Your task to perform on an android device: Open the map Image 0: 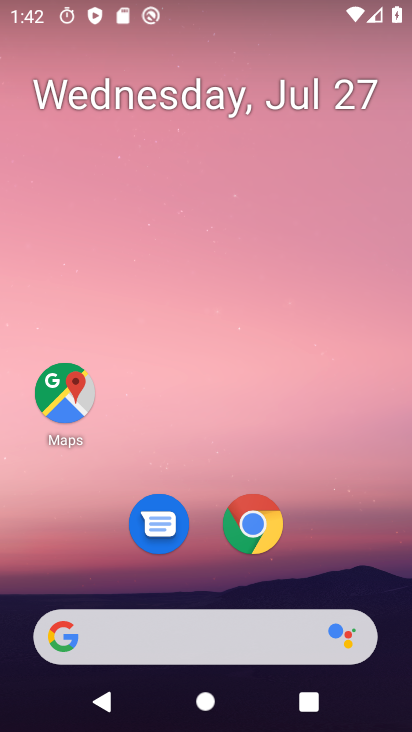
Step 0: click (59, 392)
Your task to perform on an android device: Open the map Image 1: 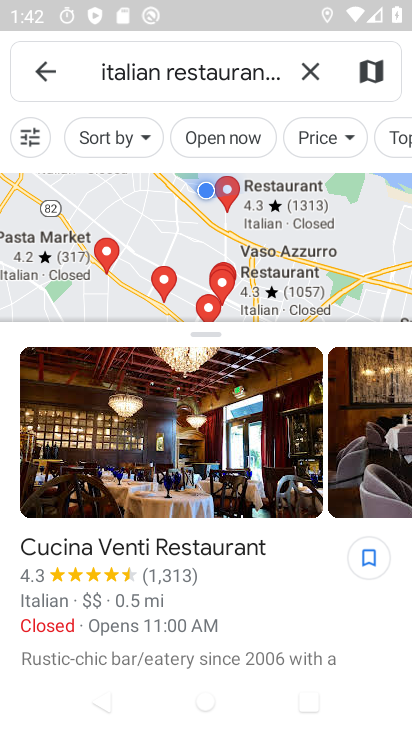
Step 1: click (314, 68)
Your task to perform on an android device: Open the map Image 2: 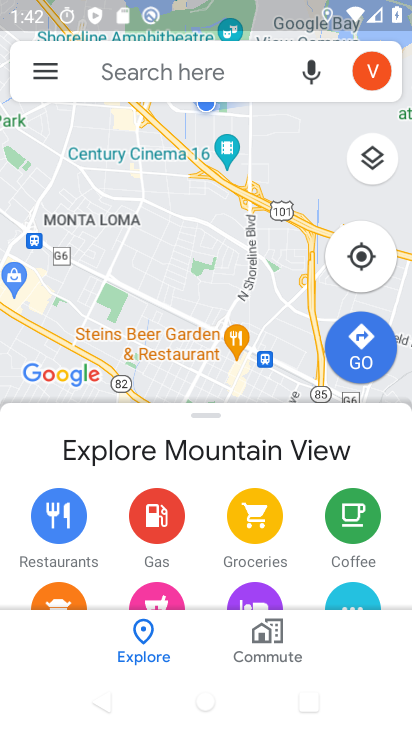
Step 2: task complete